Your task to perform on an android device: Open privacy settings Image 0: 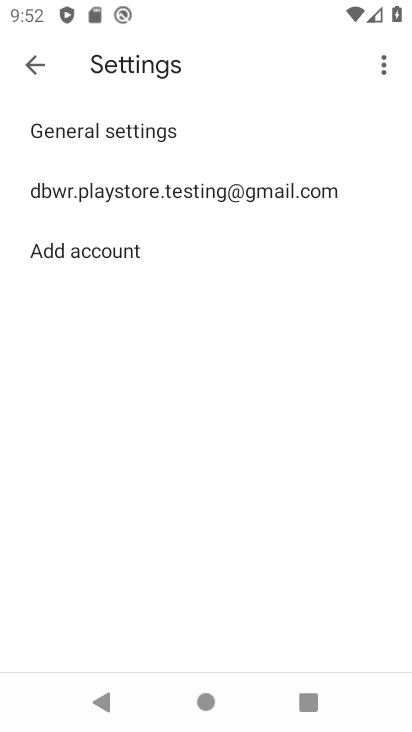
Step 0: press back button
Your task to perform on an android device: Open privacy settings Image 1: 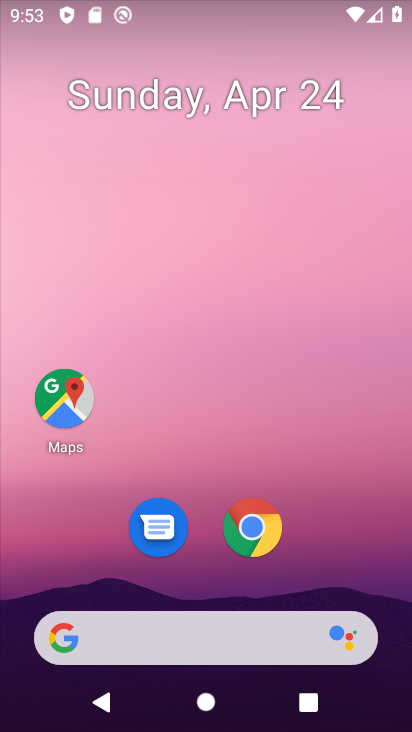
Step 1: drag from (222, 495) to (250, 118)
Your task to perform on an android device: Open privacy settings Image 2: 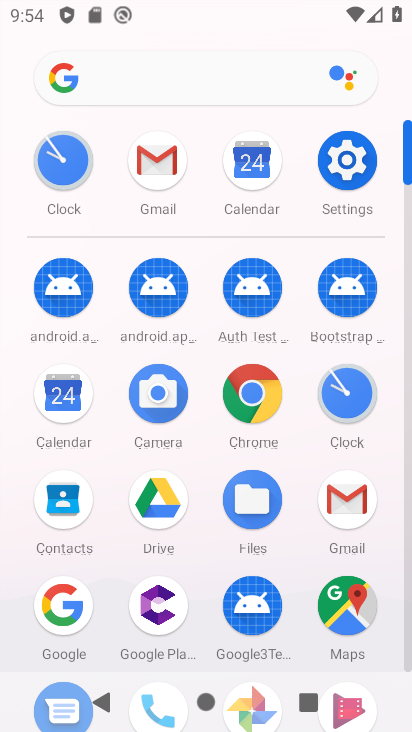
Step 2: click (360, 164)
Your task to perform on an android device: Open privacy settings Image 3: 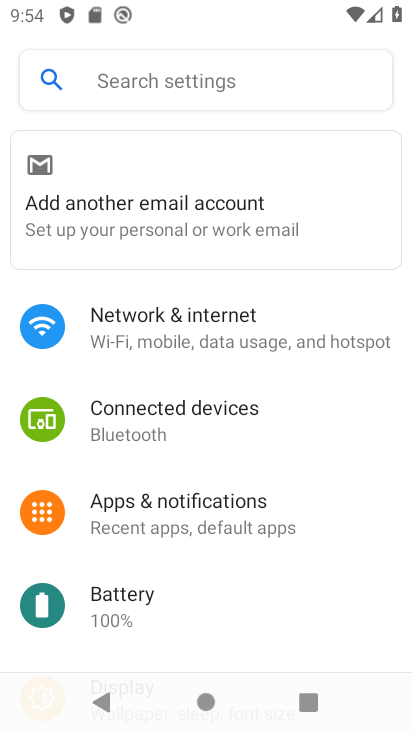
Step 3: drag from (162, 576) to (289, 115)
Your task to perform on an android device: Open privacy settings Image 4: 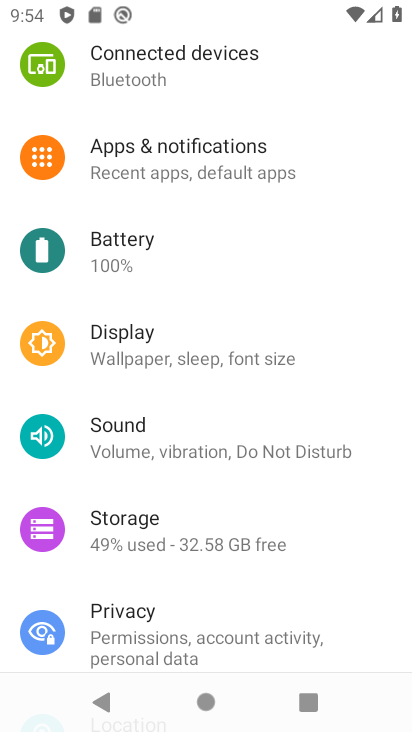
Step 4: click (177, 637)
Your task to perform on an android device: Open privacy settings Image 5: 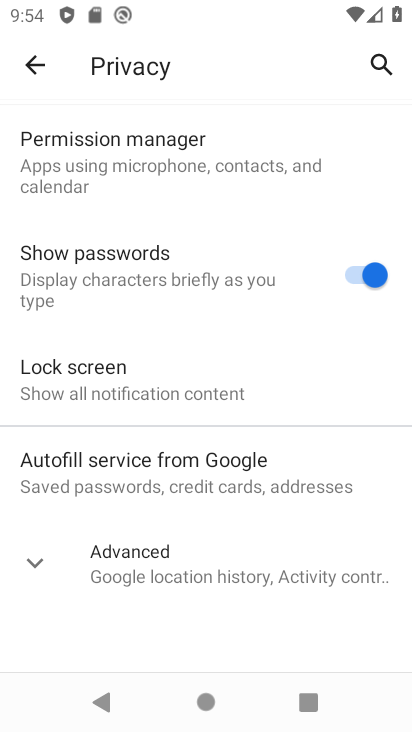
Step 5: task complete